Your task to perform on an android device: turn off location Image 0: 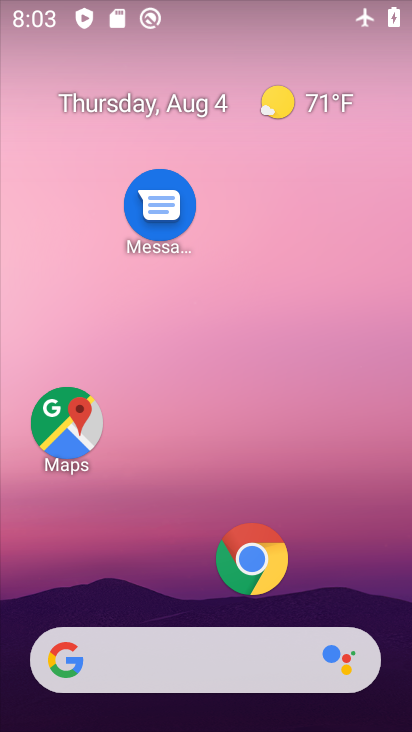
Step 0: drag from (167, 612) to (165, 55)
Your task to perform on an android device: turn off location Image 1: 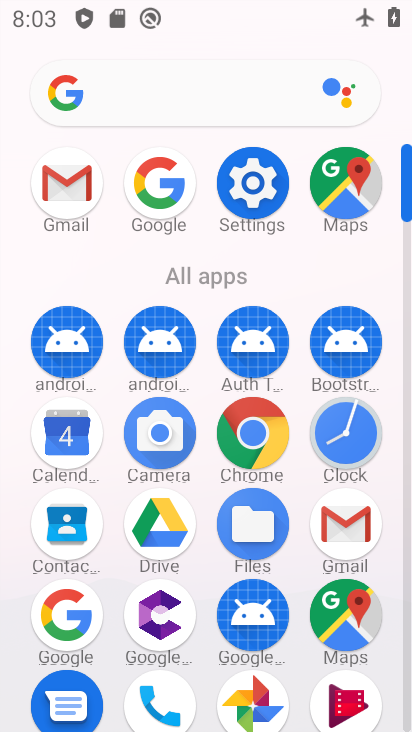
Step 1: click (268, 201)
Your task to perform on an android device: turn off location Image 2: 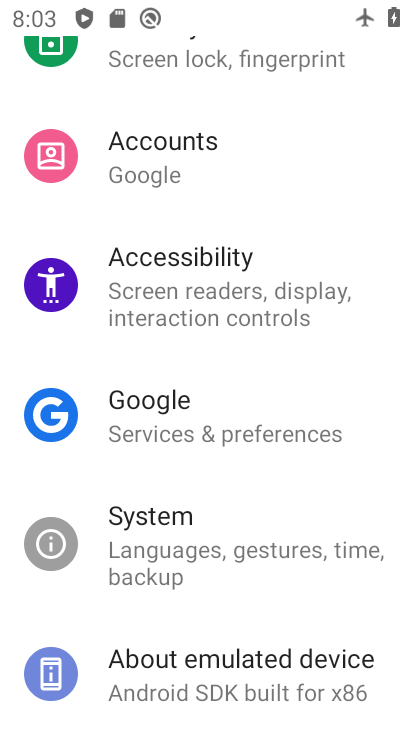
Step 2: drag from (256, 256) to (155, 640)
Your task to perform on an android device: turn off location Image 3: 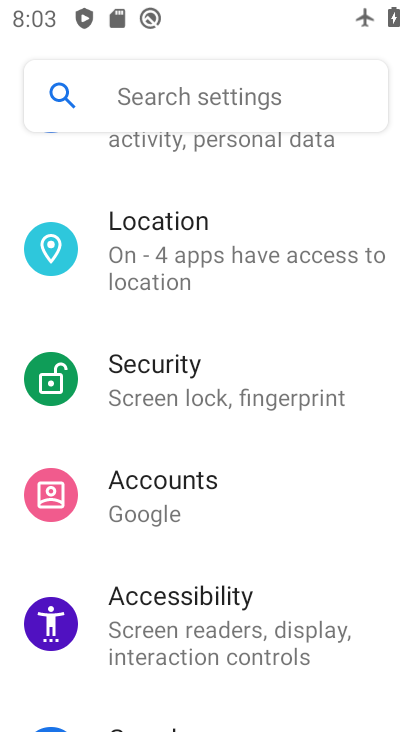
Step 3: click (177, 261)
Your task to perform on an android device: turn off location Image 4: 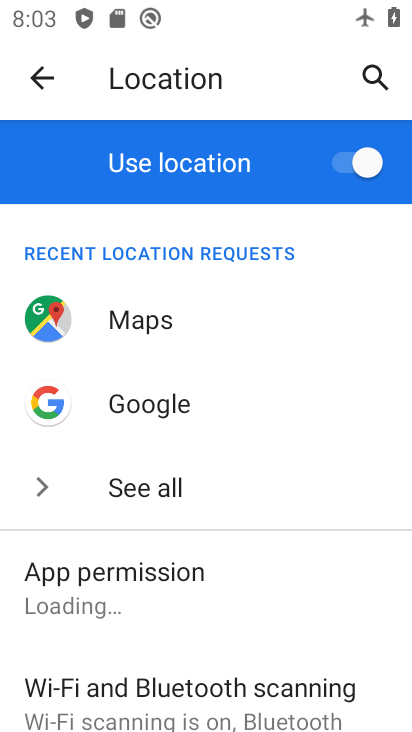
Step 4: click (349, 163)
Your task to perform on an android device: turn off location Image 5: 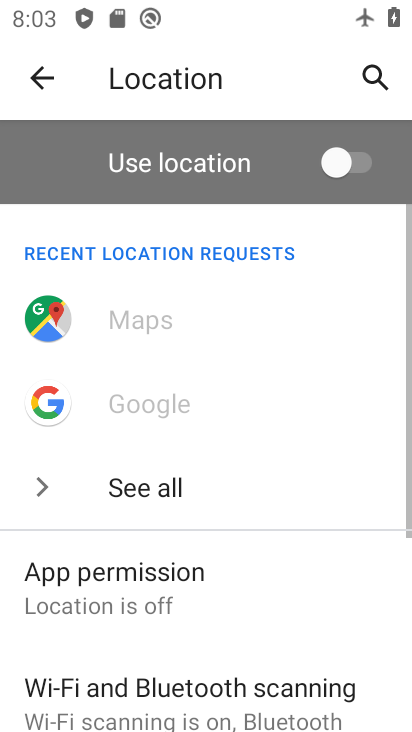
Step 5: task complete